Your task to perform on an android device: open a new tab in the chrome app Image 0: 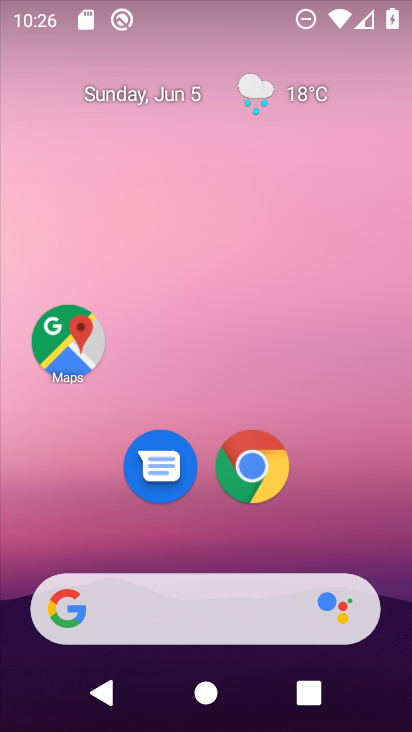
Step 0: drag from (342, 511) to (291, 12)
Your task to perform on an android device: open a new tab in the chrome app Image 1: 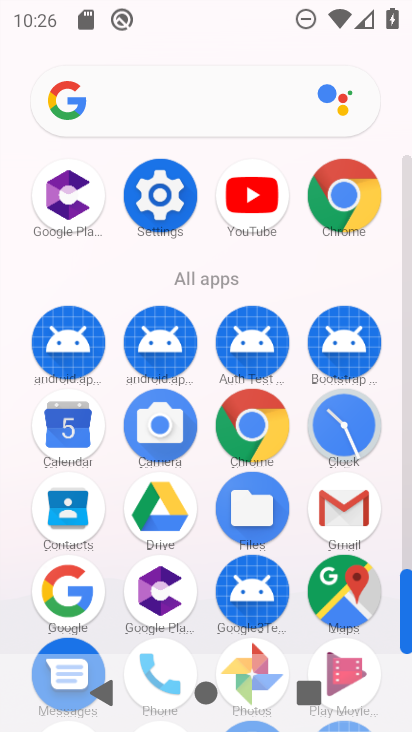
Step 1: click (343, 193)
Your task to perform on an android device: open a new tab in the chrome app Image 2: 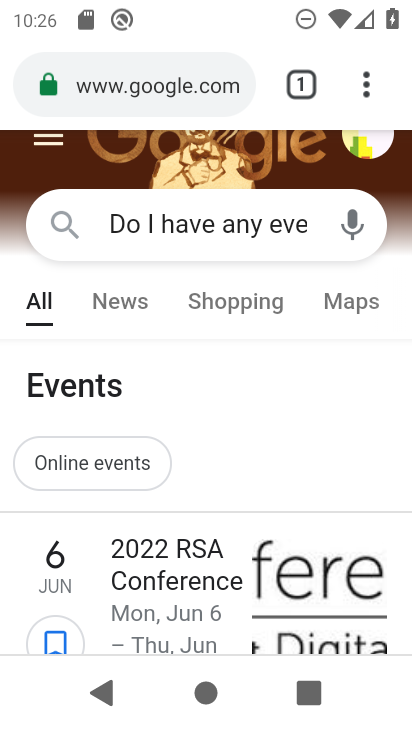
Step 2: task complete